Your task to perform on an android device: turn on the 24-hour format for clock Image 0: 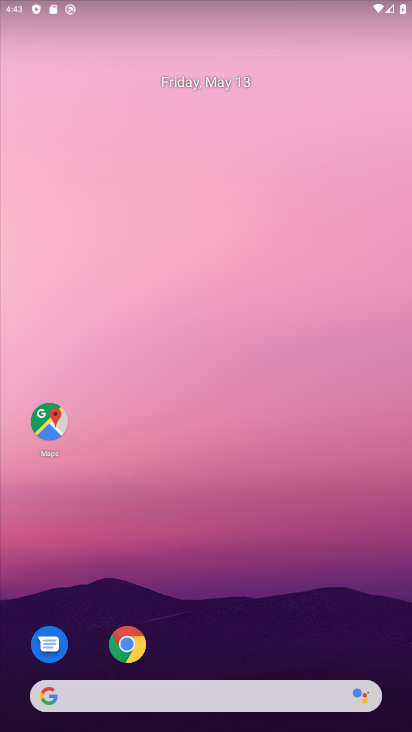
Step 0: drag from (200, 499) to (267, 44)
Your task to perform on an android device: turn on the 24-hour format for clock Image 1: 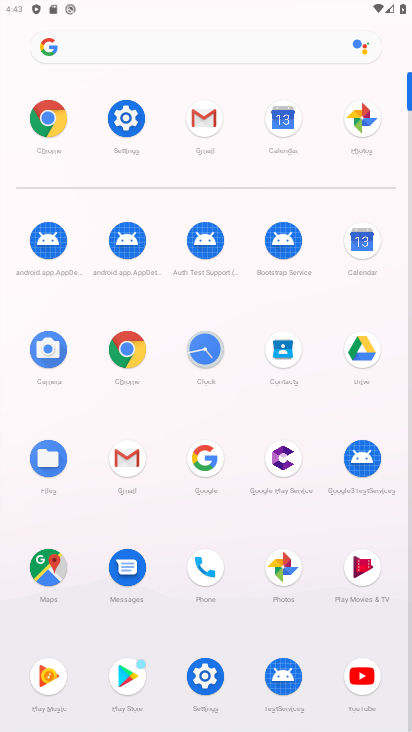
Step 1: click (197, 353)
Your task to perform on an android device: turn on the 24-hour format for clock Image 2: 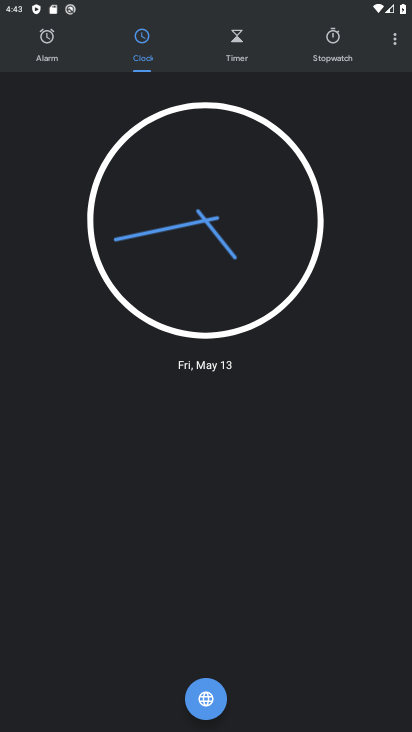
Step 2: click (395, 40)
Your task to perform on an android device: turn on the 24-hour format for clock Image 3: 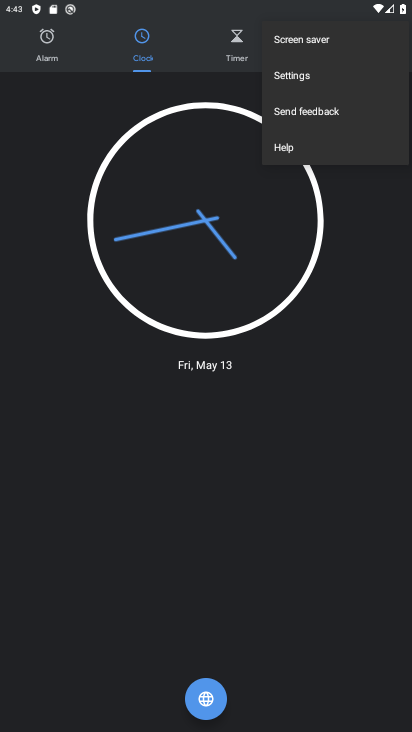
Step 3: click (281, 84)
Your task to perform on an android device: turn on the 24-hour format for clock Image 4: 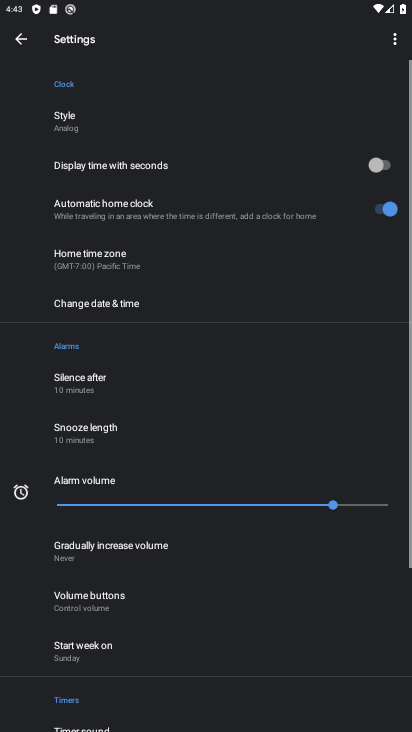
Step 4: drag from (169, 595) to (283, 91)
Your task to perform on an android device: turn on the 24-hour format for clock Image 5: 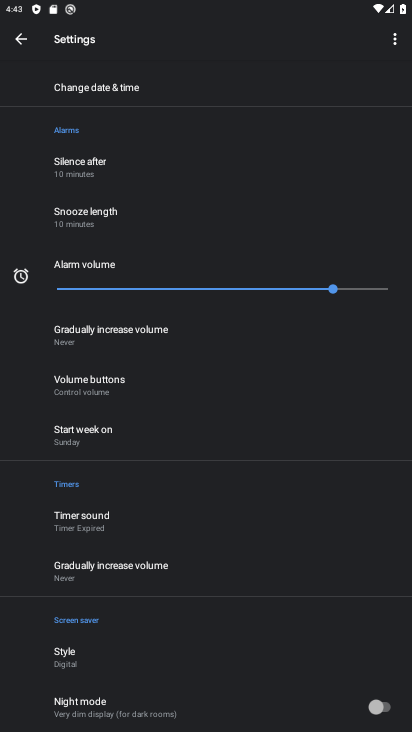
Step 5: drag from (155, 655) to (245, 337)
Your task to perform on an android device: turn on the 24-hour format for clock Image 6: 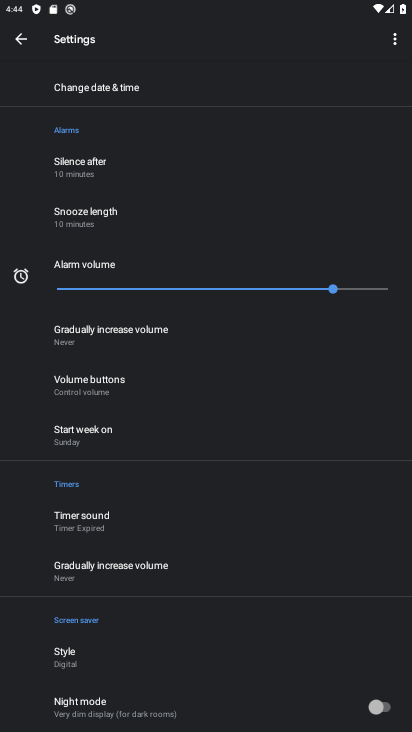
Step 6: click (112, 91)
Your task to perform on an android device: turn on the 24-hour format for clock Image 7: 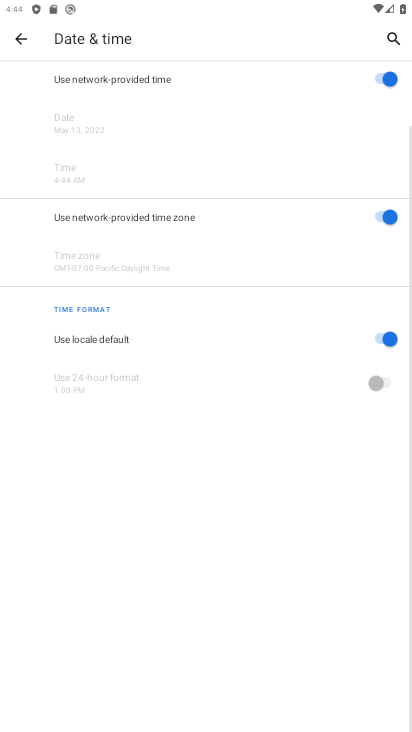
Step 7: click (379, 376)
Your task to perform on an android device: turn on the 24-hour format for clock Image 8: 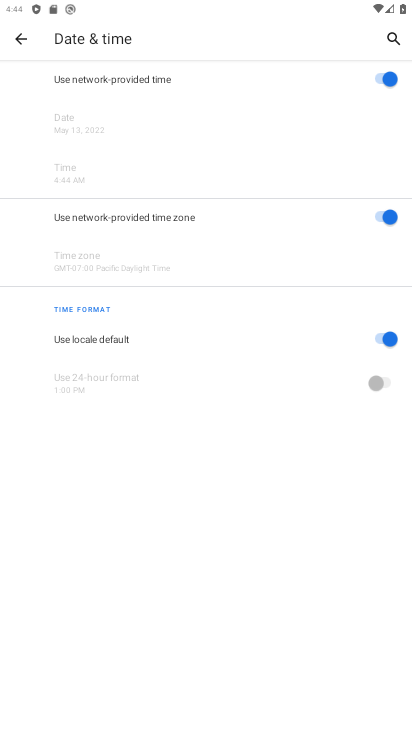
Step 8: click (382, 335)
Your task to perform on an android device: turn on the 24-hour format for clock Image 9: 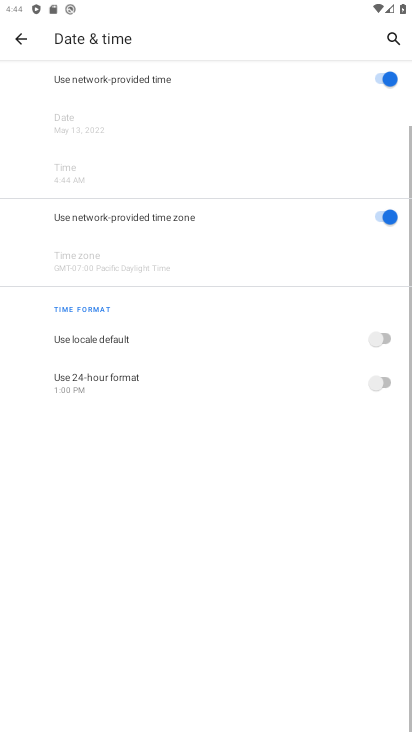
Step 9: click (381, 384)
Your task to perform on an android device: turn on the 24-hour format for clock Image 10: 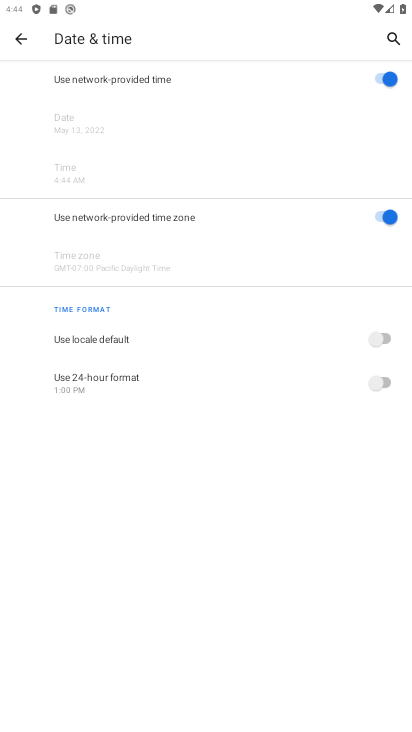
Step 10: task complete